Your task to perform on an android device: Open Youtube and go to the subscriptions tab Image 0: 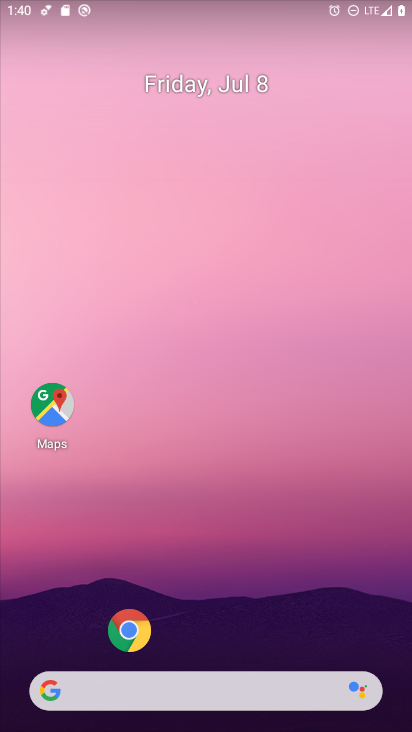
Step 0: drag from (211, 702) to (299, 13)
Your task to perform on an android device: Open Youtube and go to the subscriptions tab Image 1: 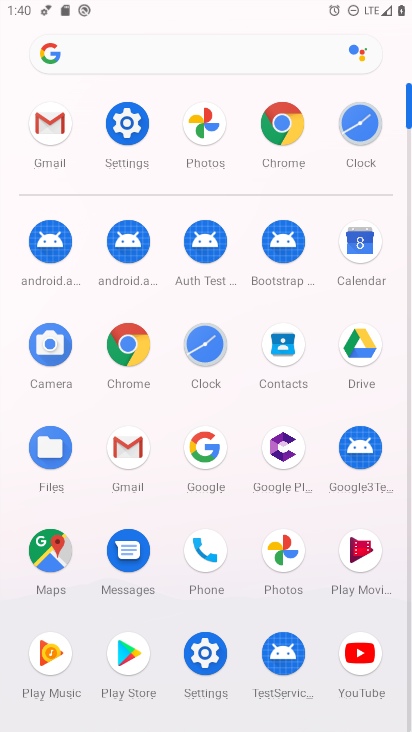
Step 1: click (362, 649)
Your task to perform on an android device: Open Youtube and go to the subscriptions tab Image 2: 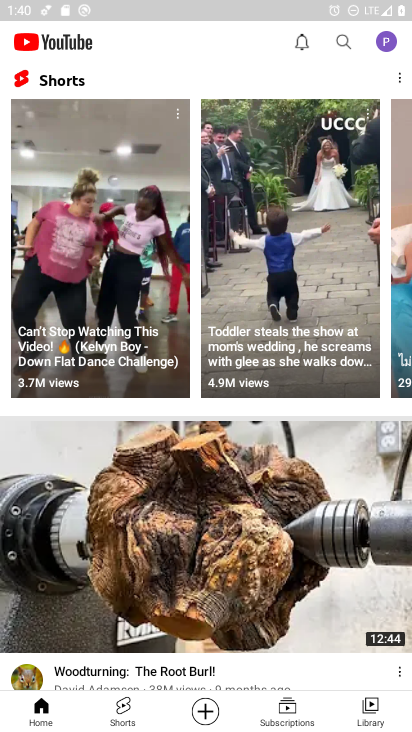
Step 2: click (275, 706)
Your task to perform on an android device: Open Youtube and go to the subscriptions tab Image 3: 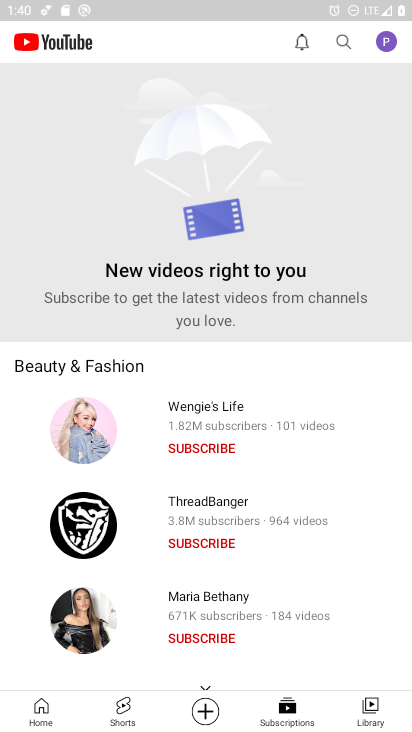
Step 3: click (288, 702)
Your task to perform on an android device: Open Youtube and go to the subscriptions tab Image 4: 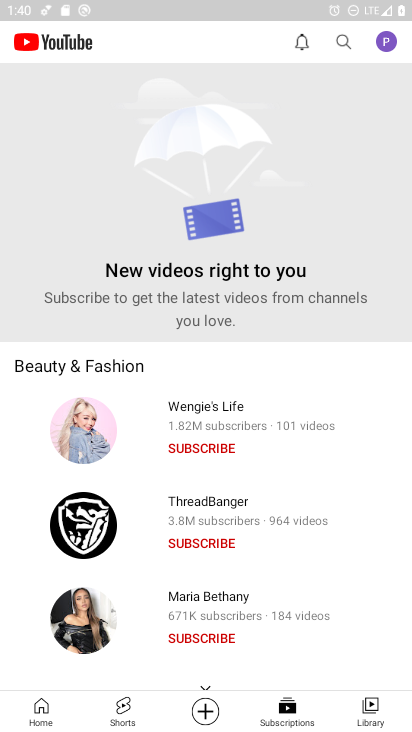
Step 4: task complete